Your task to perform on an android device: change notification settings in the gmail app Image 0: 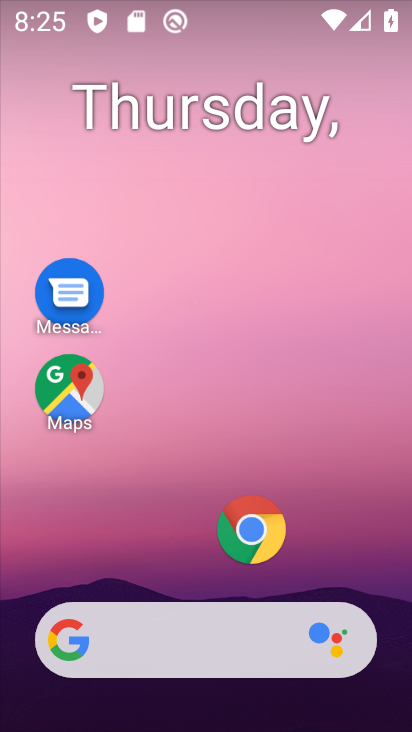
Step 0: drag from (166, 581) to (201, 152)
Your task to perform on an android device: change notification settings in the gmail app Image 1: 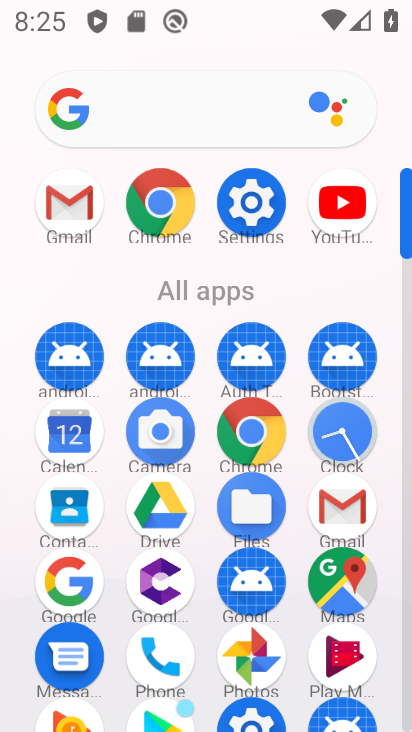
Step 1: click (86, 219)
Your task to perform on an android device: change notification settings in the gmail app Image 2: 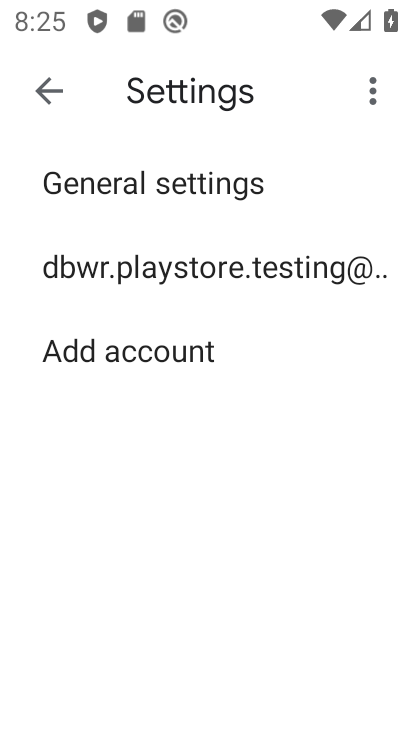
Step 2: click (148, 271)
Your task to perform on an android device: change notification settings in the gmail app Image 3: 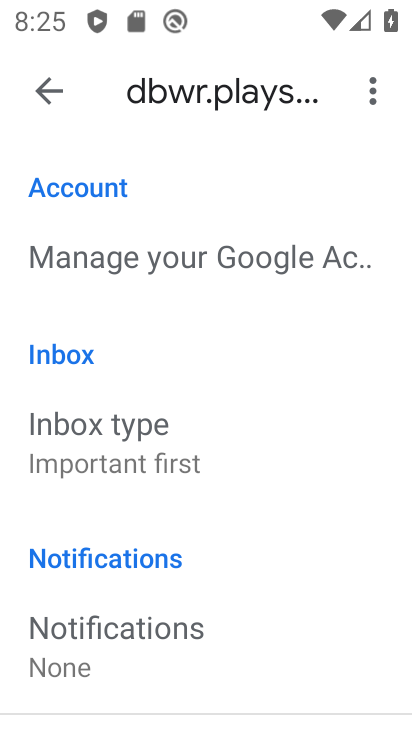
Step 3: click (116, 643)
Your task to perform on an android device: change notification settings in the gmail app Image 4: 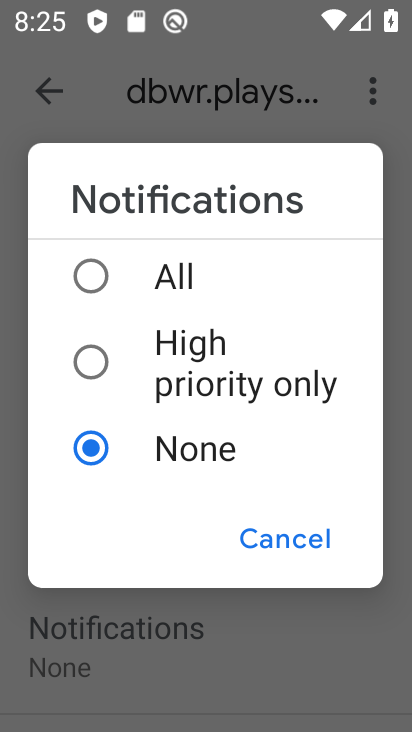
Step 4: click (185, 367)
Your task to perform on an android device: change notification settings in the gmail app Image 5: 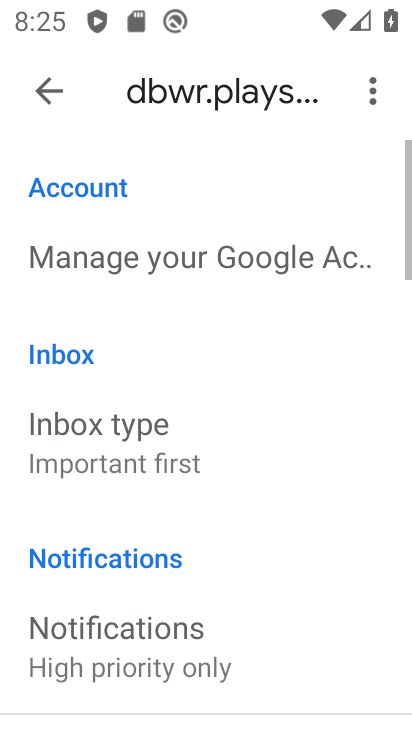
Step 5: task complete